Your task to perform on an android device: Check the news Image 0: 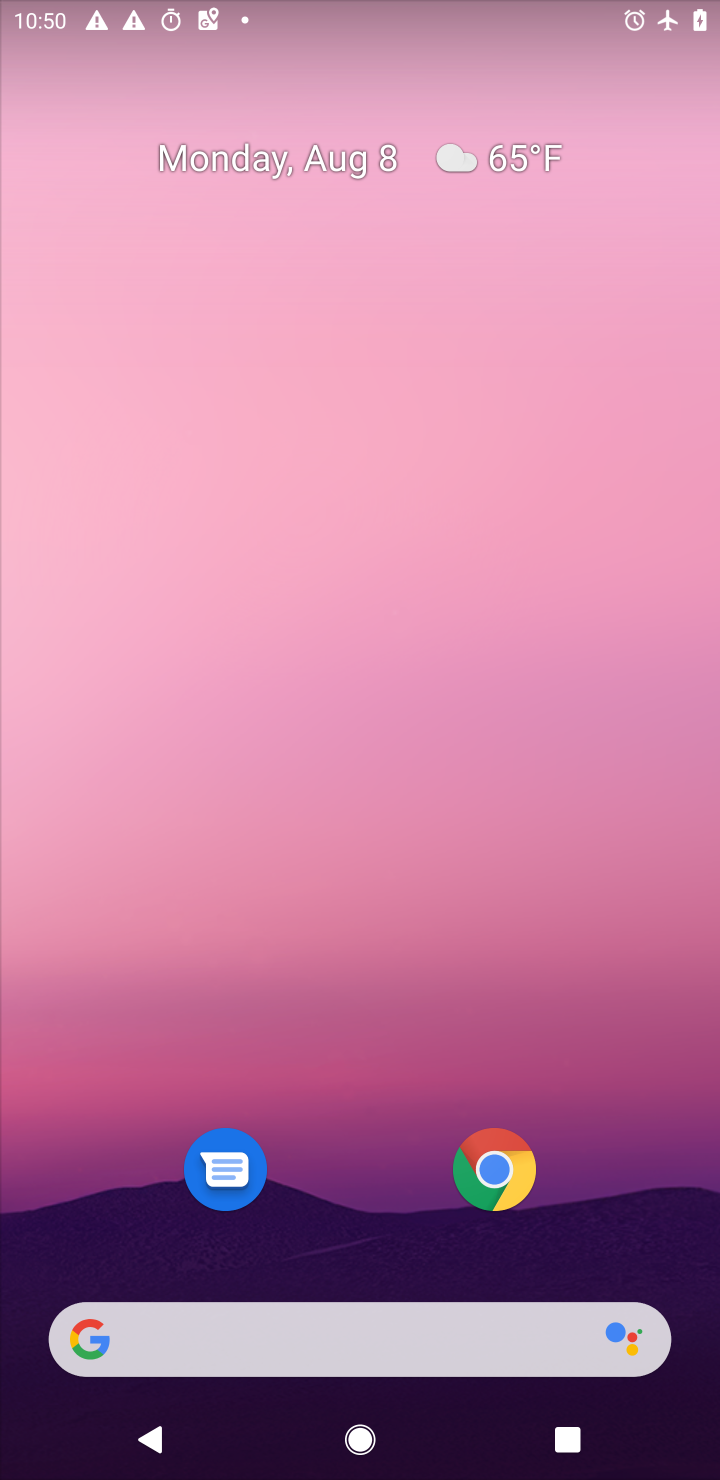
Step 0: drag from (339, 1220) to (437, 137)
Your task to perform on an android device: Check the news Image 1: 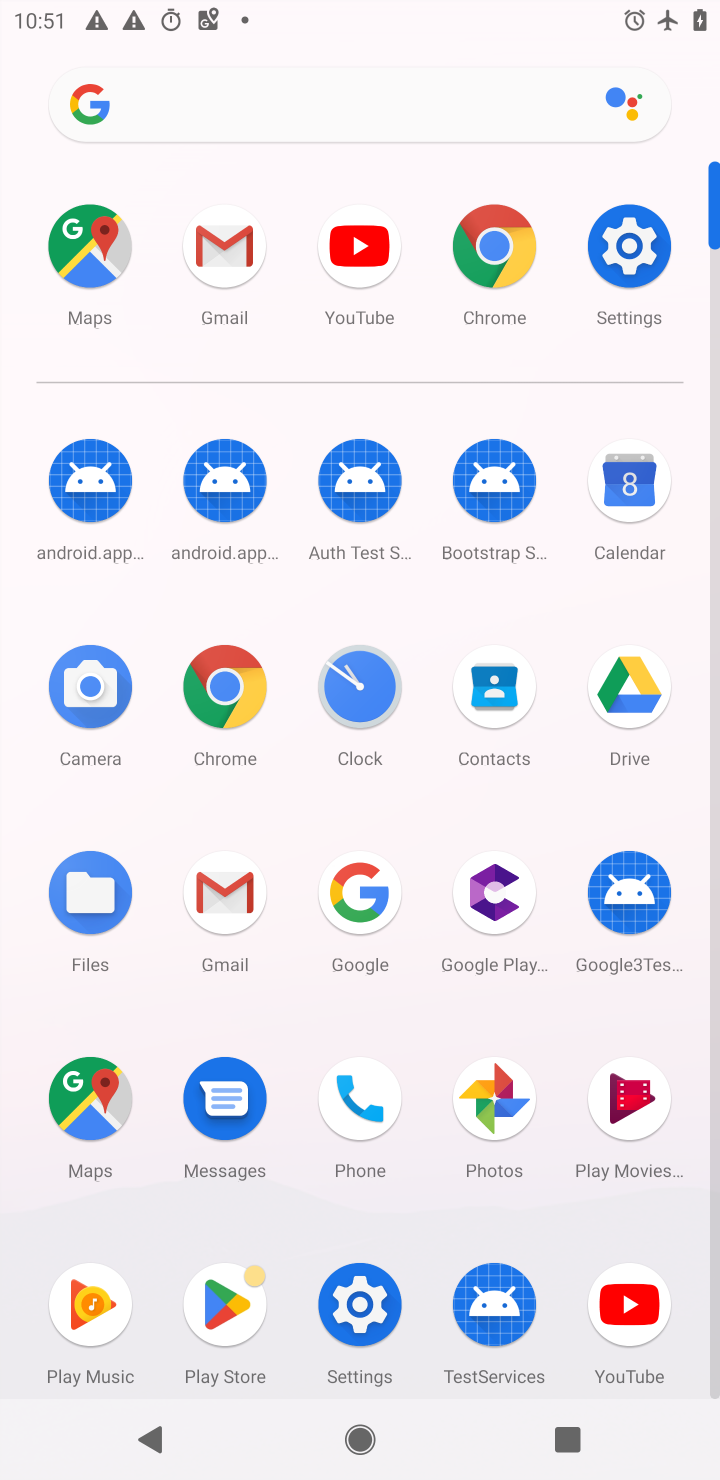
Step 1: click (332, 95)
Your task to perform on an android device: Check the news Image 2: 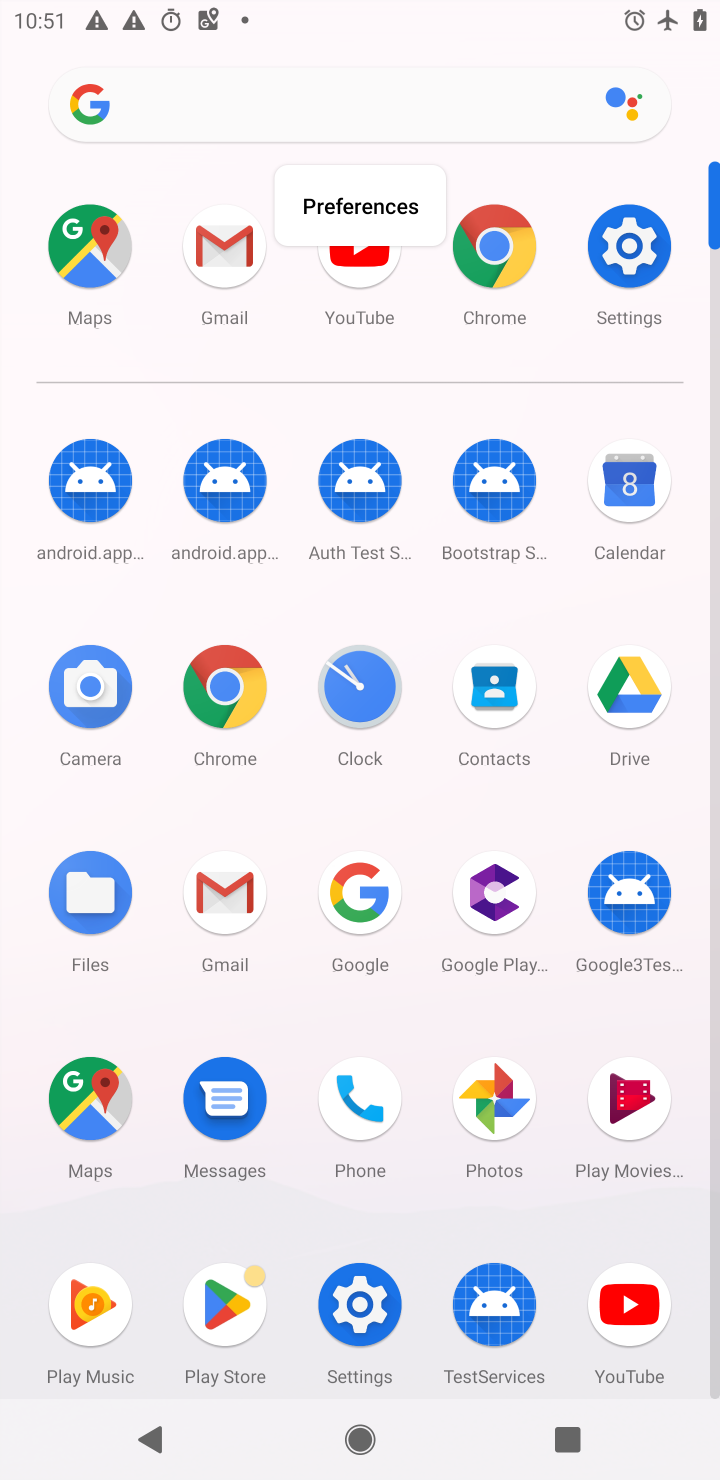
Step 2: click (250, 112)
Your task to perform on an android device: Check the news Image 3: 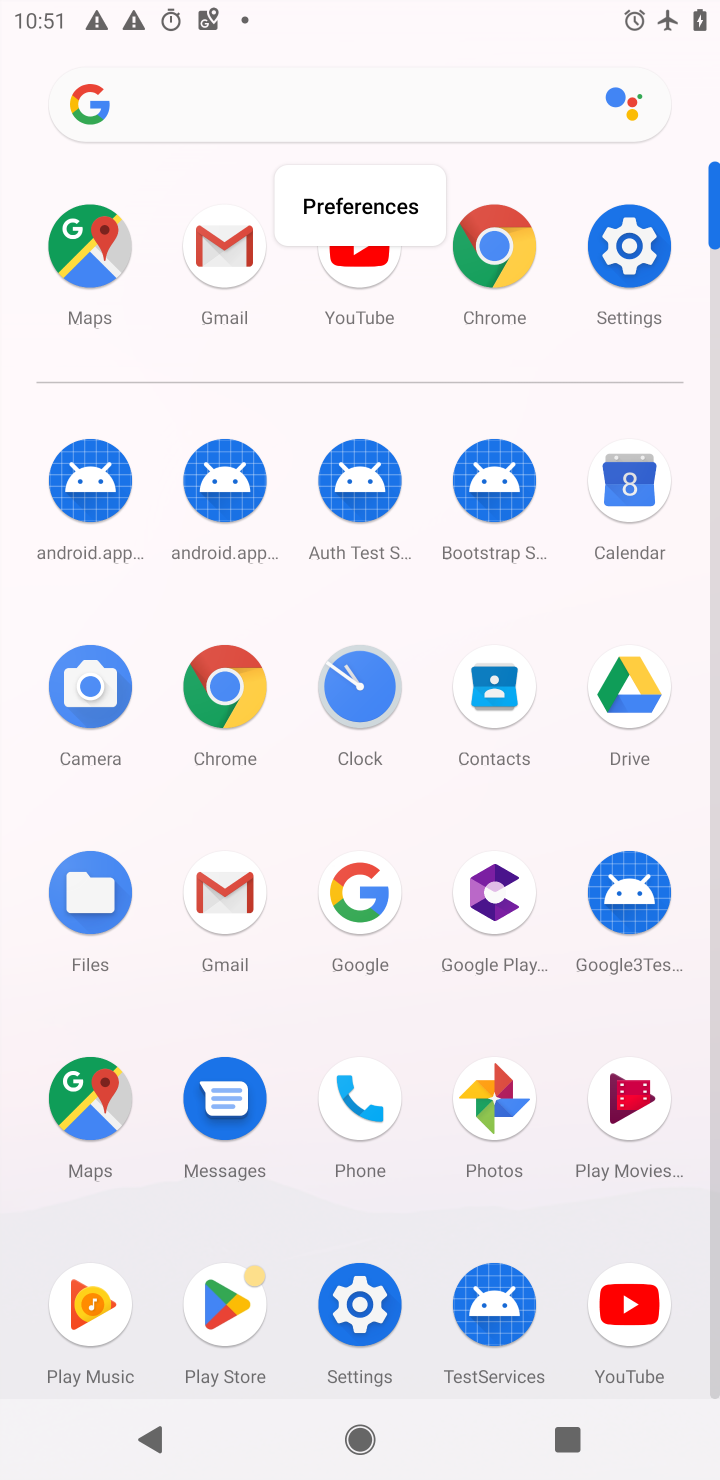
Step 3: click (299, 112)
Your task to perform on an android device: Check the news Image 4: 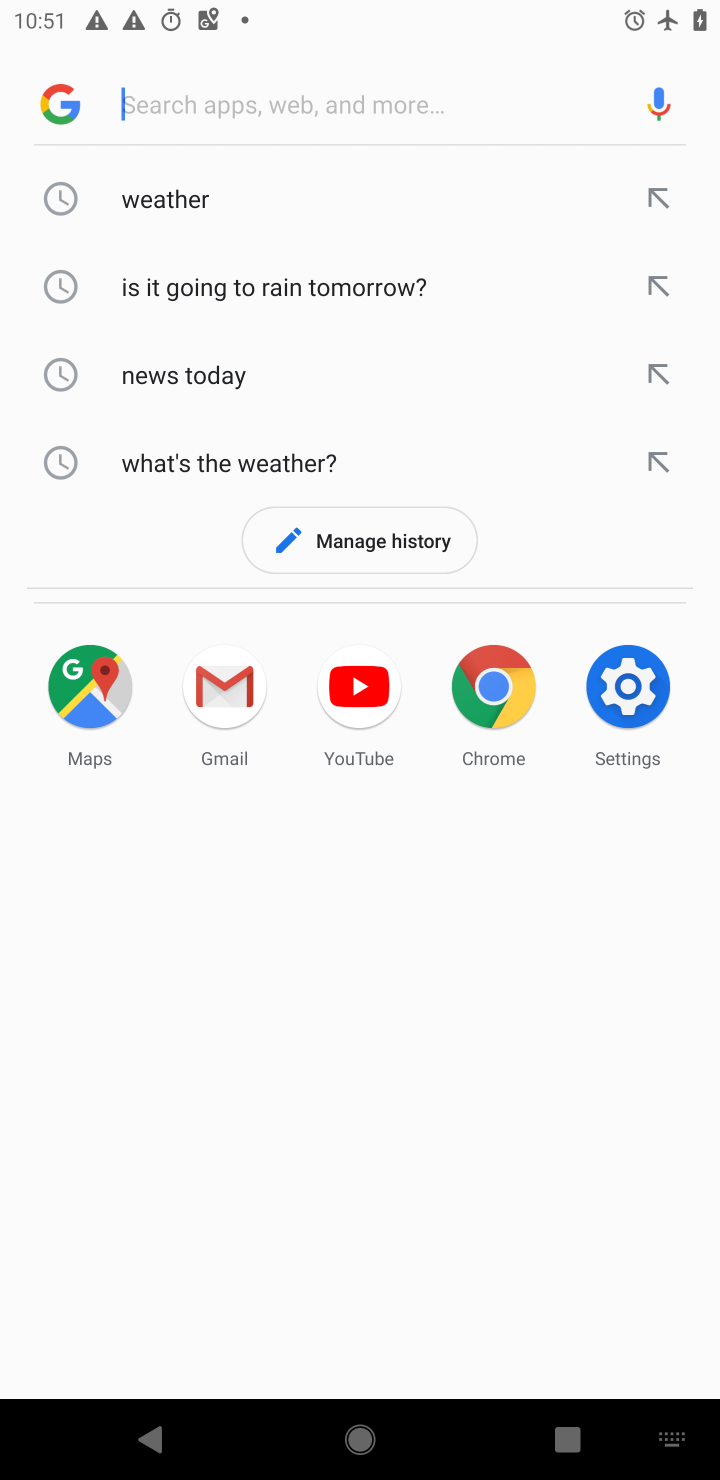
Step 4: click (258, 390)
Your task to perform on an android device: Check the news Image 5: 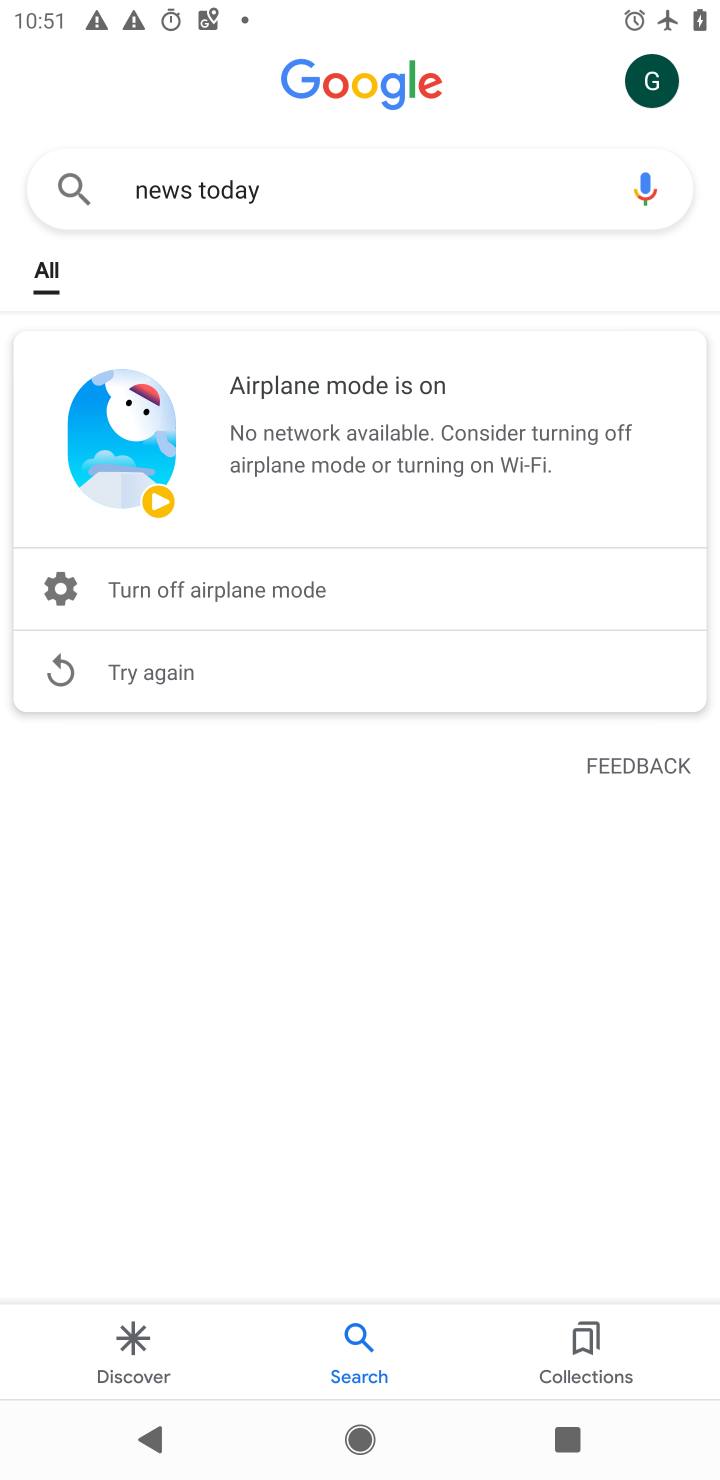
Step 5: drag from (662, 46) to (469, 1304)
Your task to perform on an android device: Check the news Image 6: 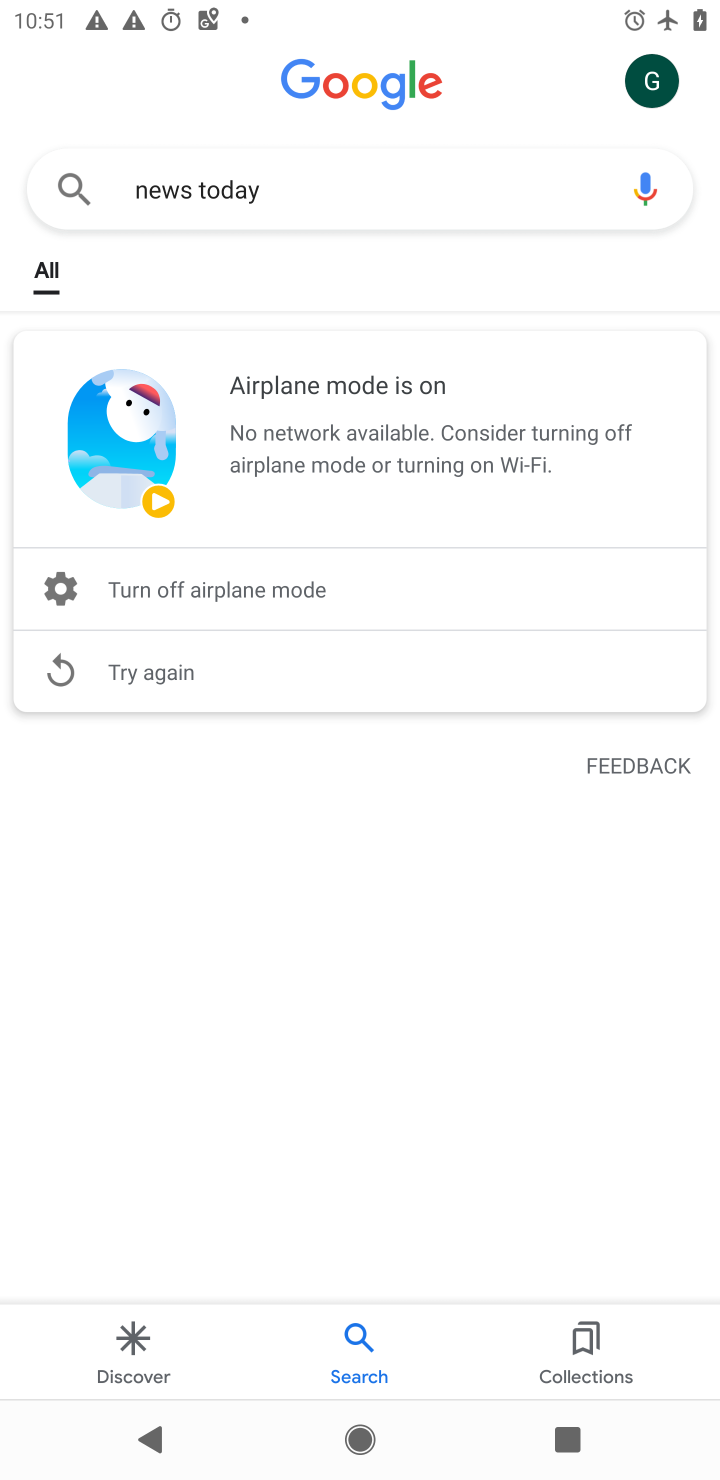
Step 6: drag from (430, 124) to (432, 1245)
Your task to perform on an android device: Check the news Image 7: 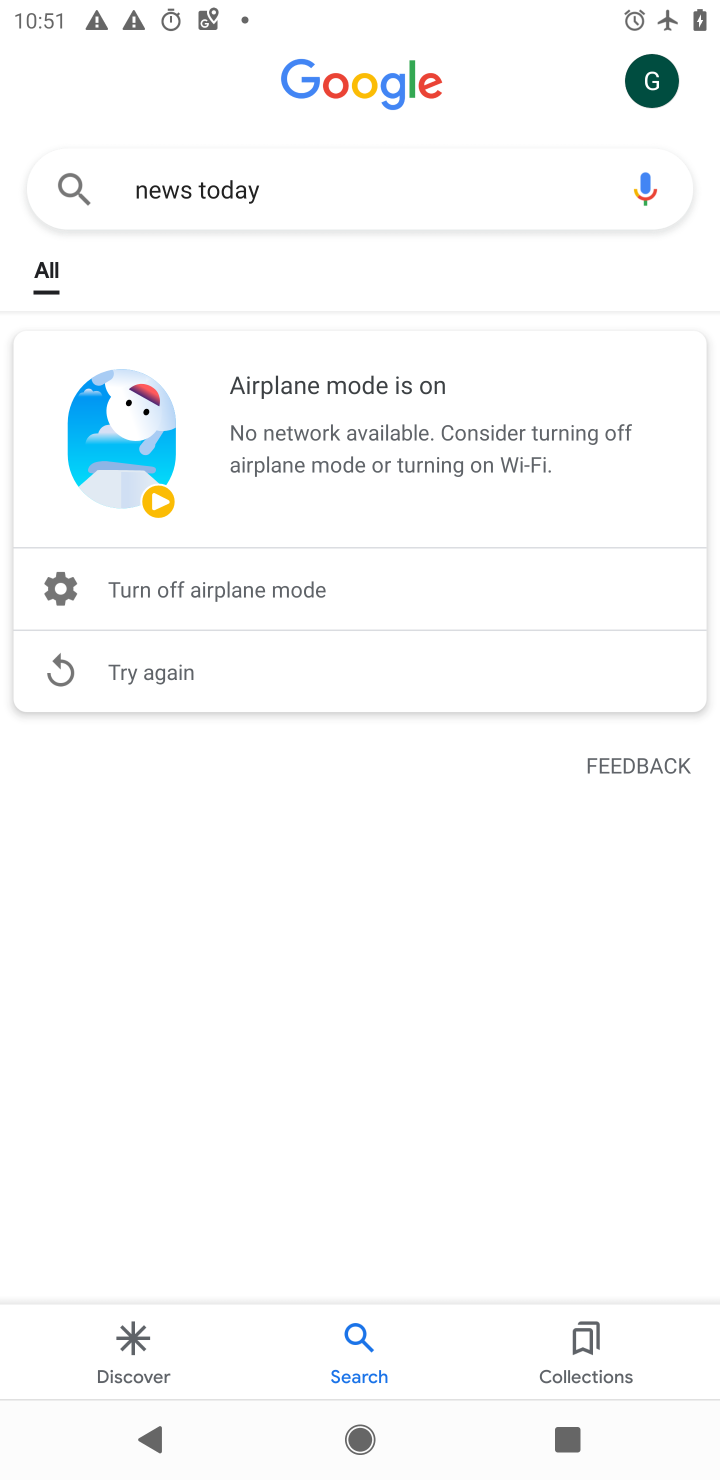
Step 7: drag from (643, 10) to (491, 1021)
Your task to perform on an android device: Check the news Image 8: 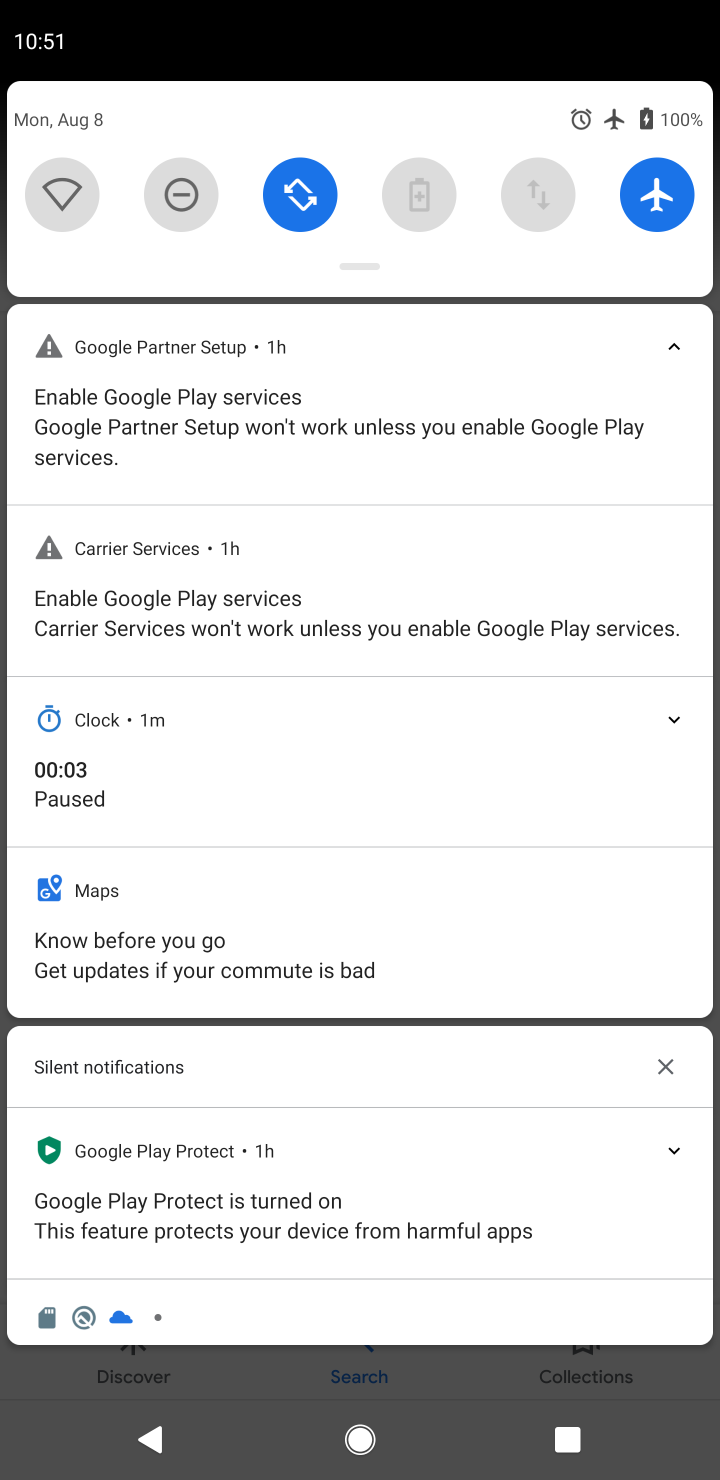
Step 8: click (660, 174)
Your task to perform on an android device: Check the news Image 9: 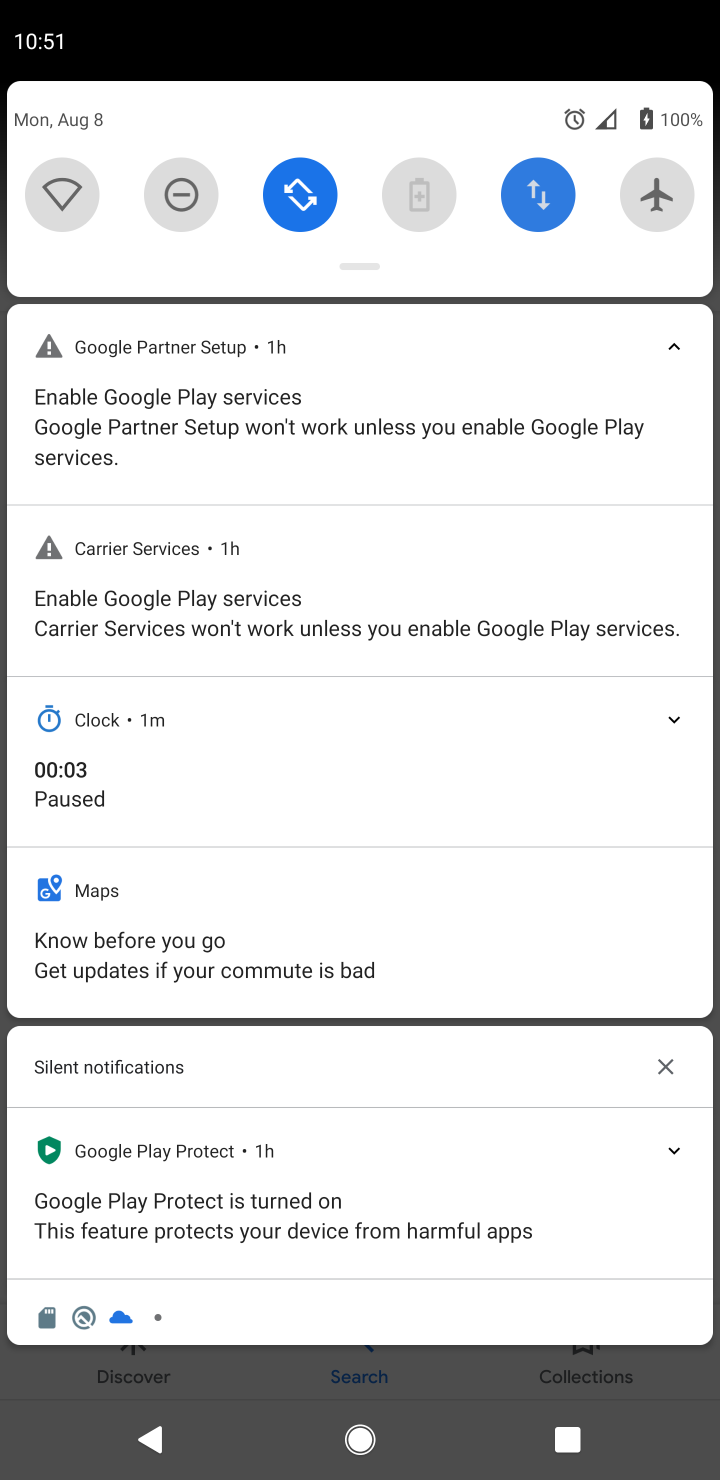
Step 9: drag from (252, 1353) to (531, 148)
Your task to perform on an android device: Check the news Image 10: 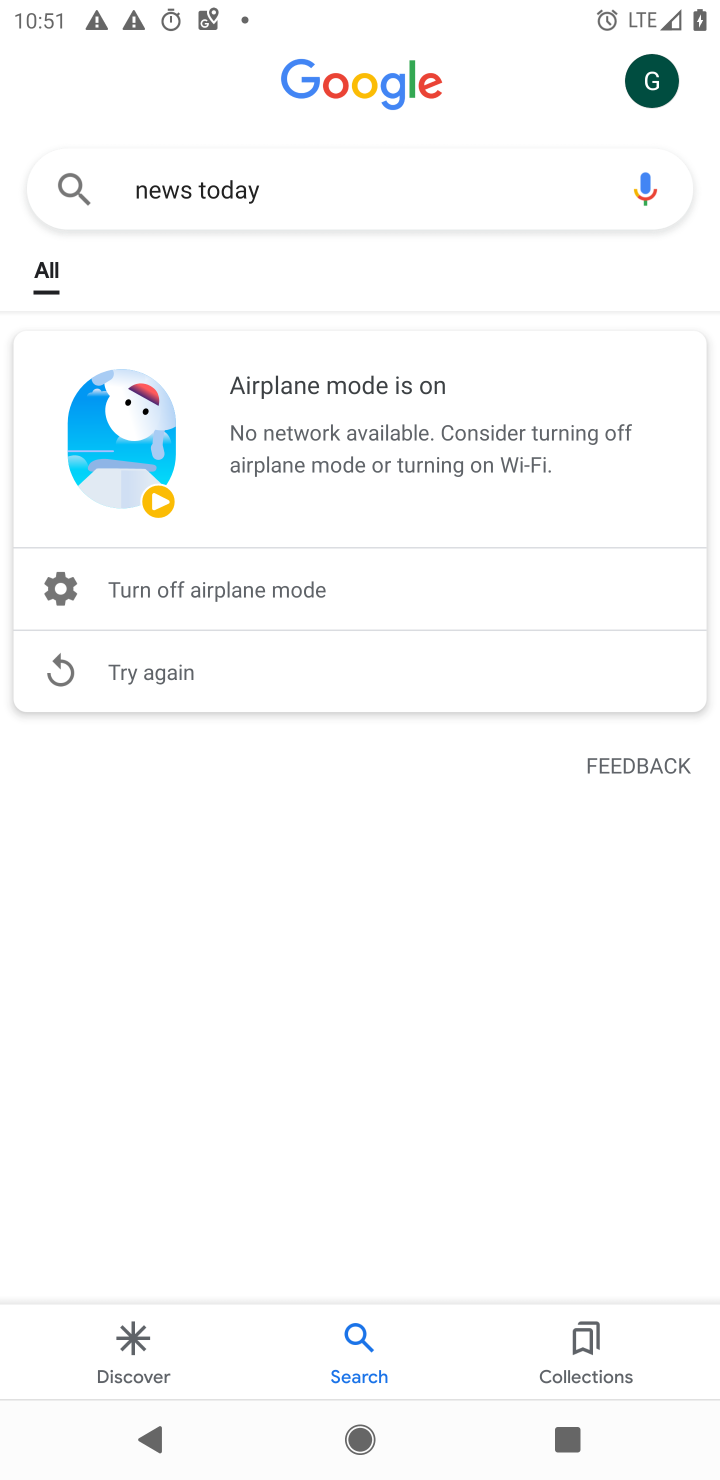
Step 10: click (138, 676)
Your task to perform on an android device: Check the news Image 11: 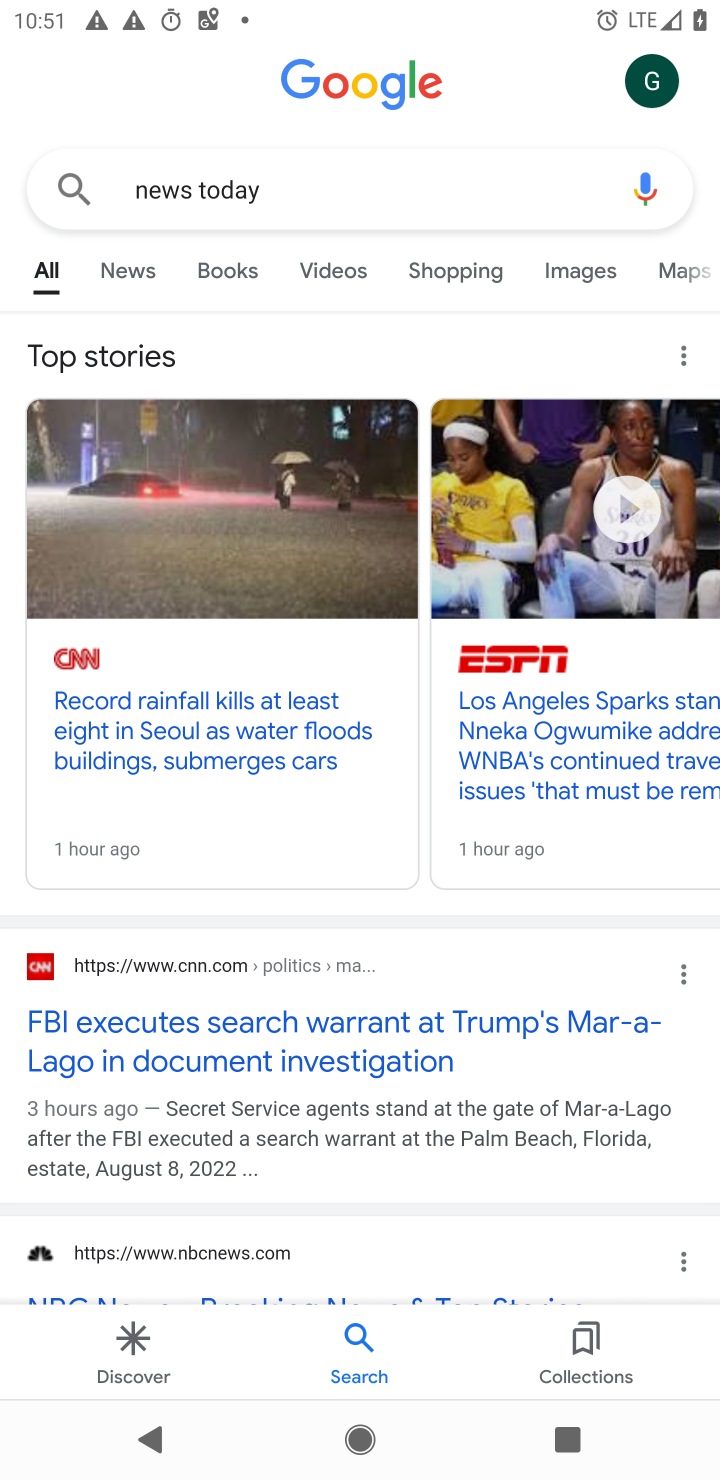
Step 11: task complete